Your task to perform on an android device: open sync settings in chrome Image 0: 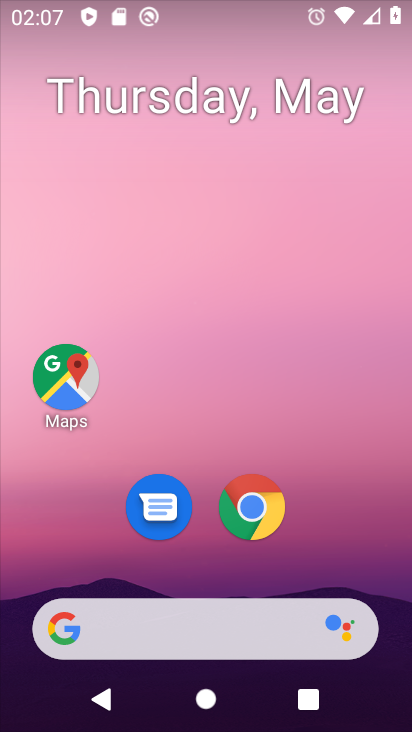
Step 0: click (248, 514)
Your task to perform on an android device: open sync settings in chrome Image 1: 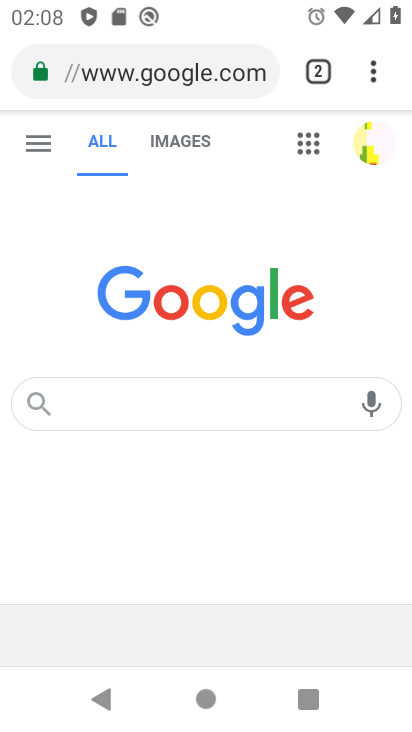
Step 1: click (368, 69)
Your task to perform on an android device: open sync settings in chrome Image 2: 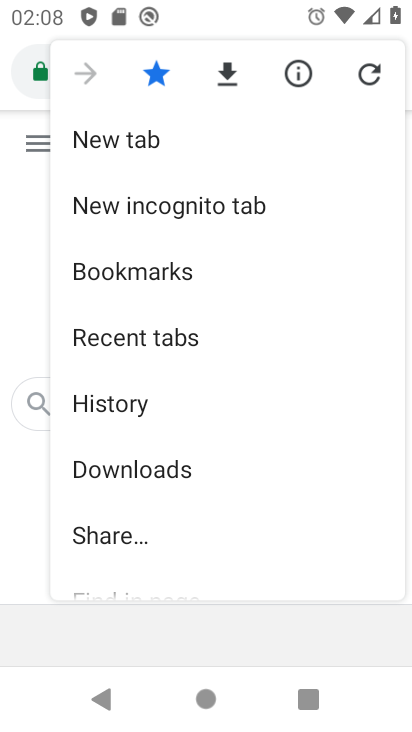
Step 2: drag from (213, 482) to (185, 131)
Your task to perform on an android device: open sync settings in chrome Image 3: 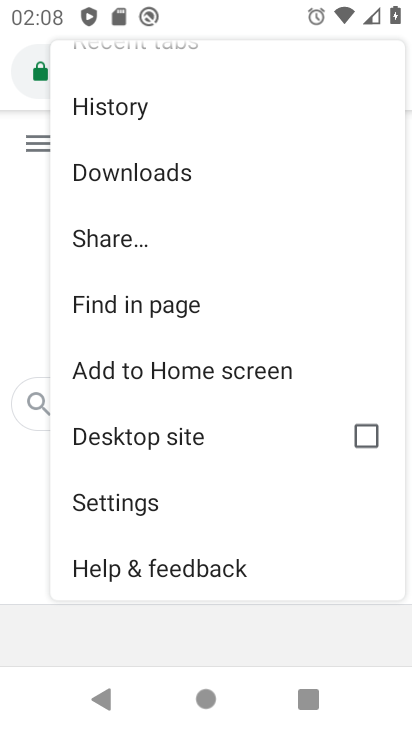
Step 3: click (199, 513)
Your task to perform on an android device: open sync settings in chrome Image 4: 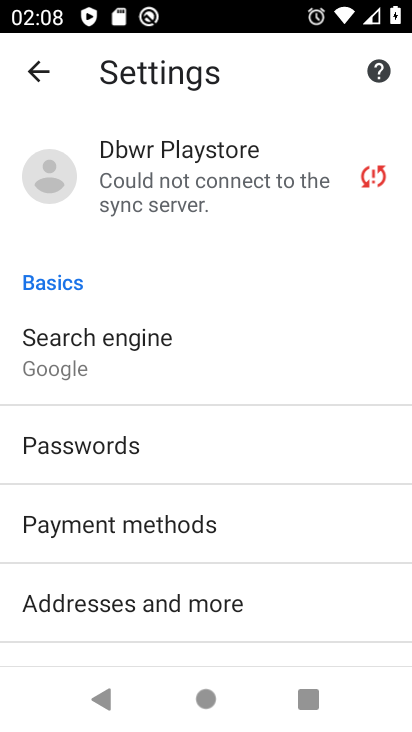
Step 4: click (170, 193)
Your task to perform on an android device: open sync settings in chrome Image 5: 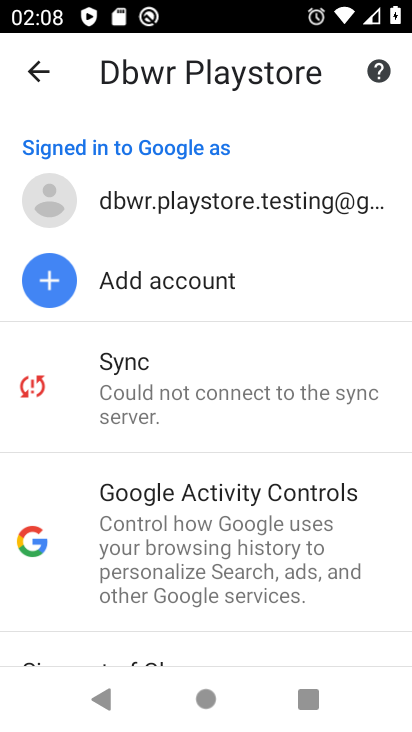
Step 5: click (183, 351)
Your task to perform on an android device: open sync settings in chrome Image 6: 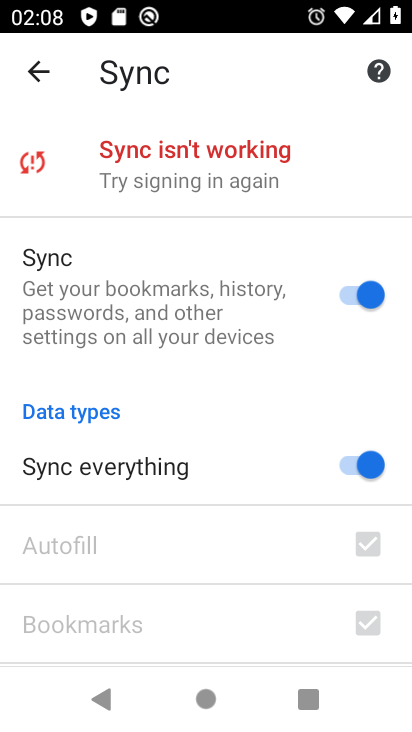
Step 6: task complete